Your task to perform on an android device: What is the recent news? Image 0: 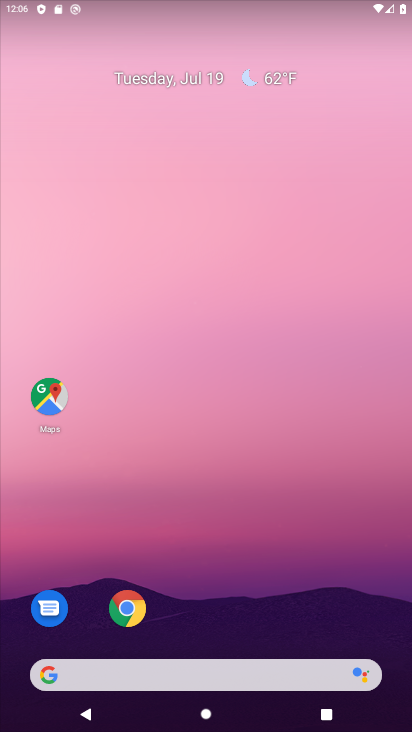
Step 0: press home button
Your task to perform on an android device: What is the recent news? Image 1: 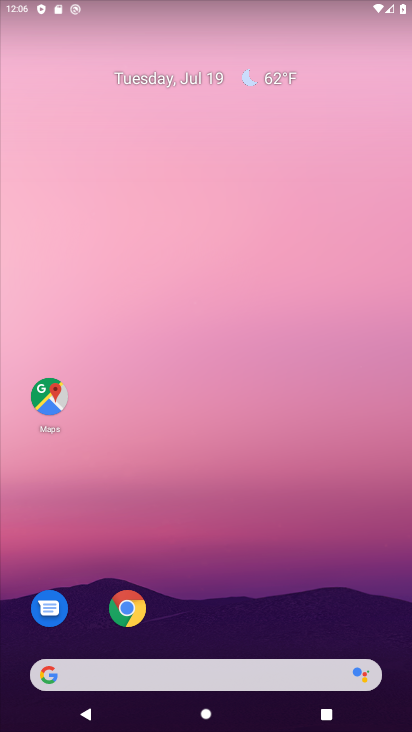
Step 1: click (237, 0)
Your task to perform on an android device: What is the recent news? Image 2: 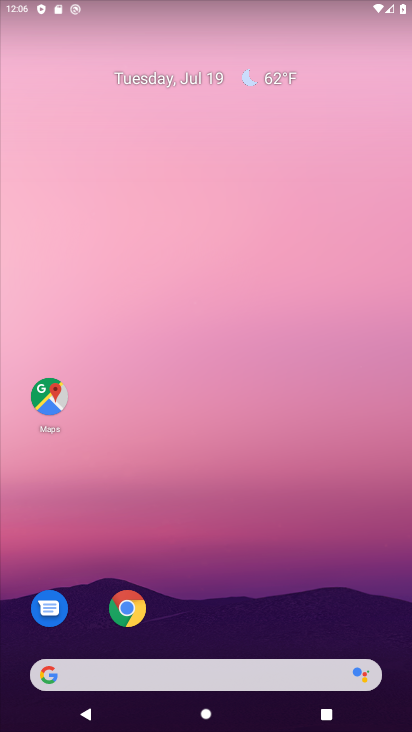
Step 2: task complete